Your task to perform on an android device: Search for Mexican restaurants on Maps Image 0: 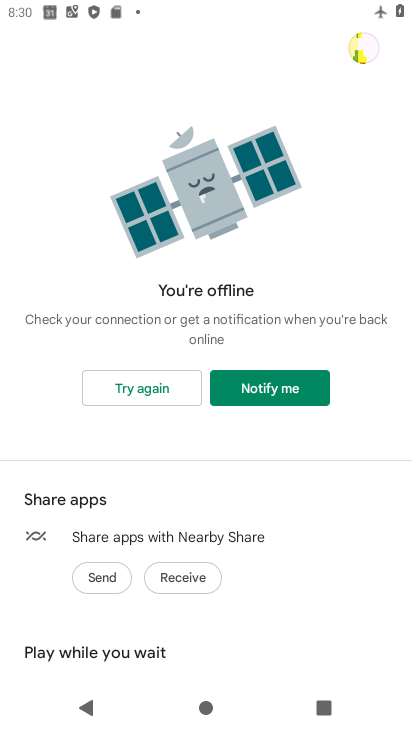
Step 0: press home button
Your task to perform on an android device: Search for Mexican restaurants on Maps Image 1: 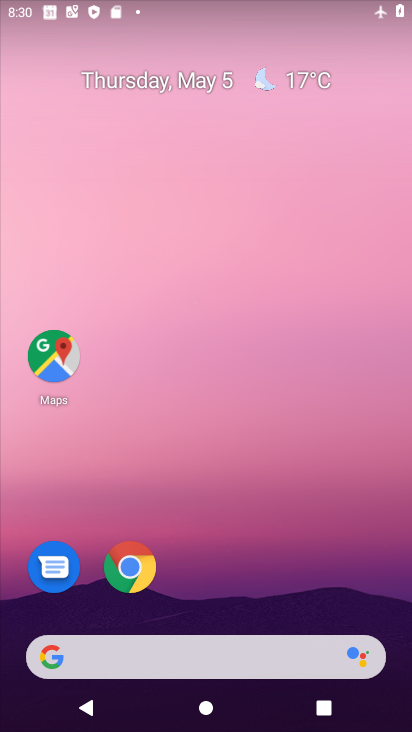
Step 1: drag from (246, 550) to (235, 66)
Your task to perform on an android device: Search for Mexican restaurants on Maps Image 2: 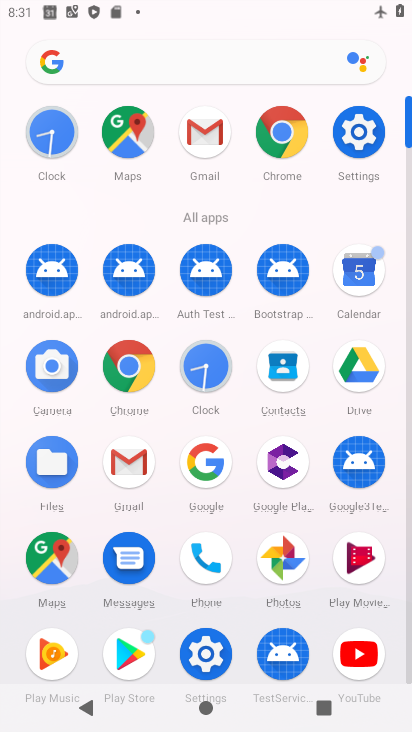
Step 2: click (126, 140)
Your task to perform on an android device: Search for Mexican restaurants on Maps Image 3: 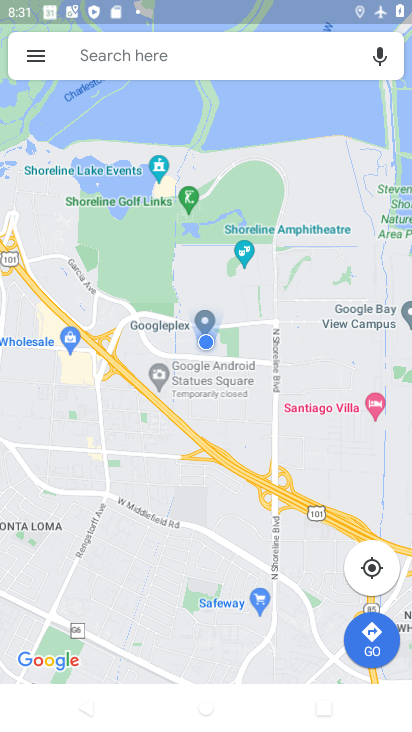
Step 3: click (203, 56)
Your task to perform on an android device: Search for Mexican restaurants on Maps Image 4: 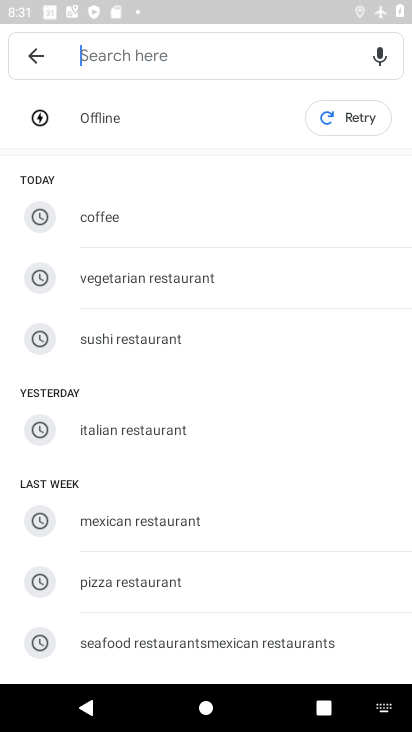
Step 4: click (176, 515)
Your task to perform on an android device: Search for Mexican restaurants on Maps Image 5: 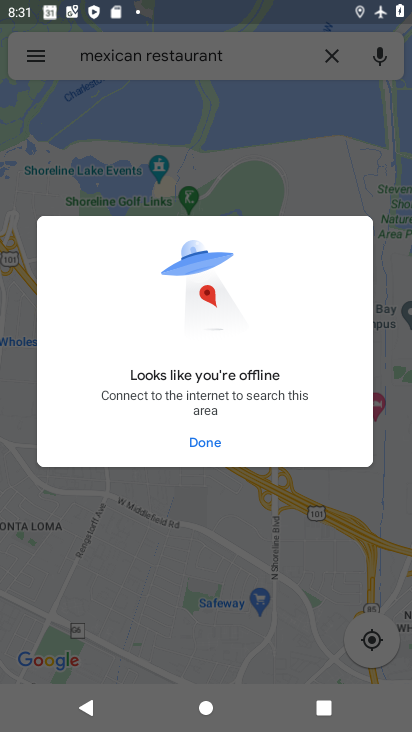
Step 5: task complete